Your task to perform on an android device: turn on showing notifications on the lock screen Image 0: 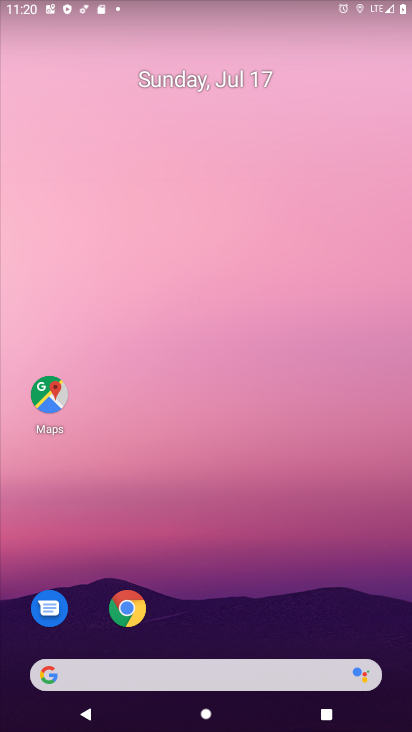
Step 0: drag from (210, 649) to (141, 58)
Your task to perform on an android device: turn on showing notifications on the lock screen Image 1: 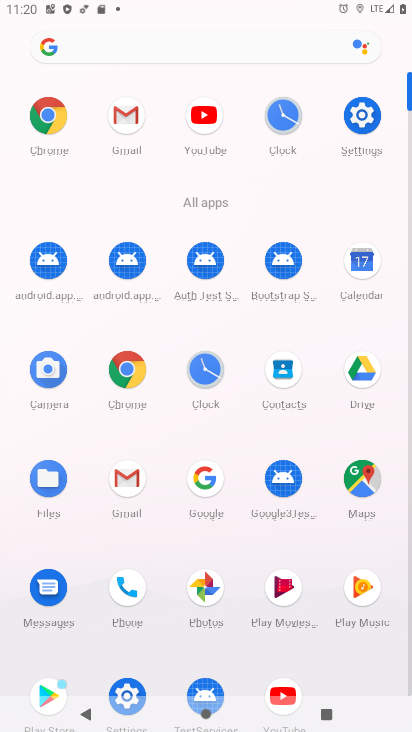
Step 1: click (351, 128)
Your task to perform on an android device: turn on showing notifications on the lock screen Image 2: 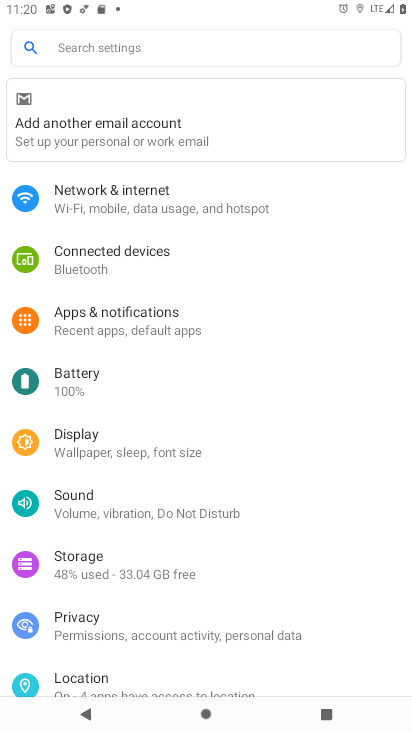
Step 2: click (185, 331)
Your task to perform on an android device: turn on showing notifications on the lock screen Image 3: 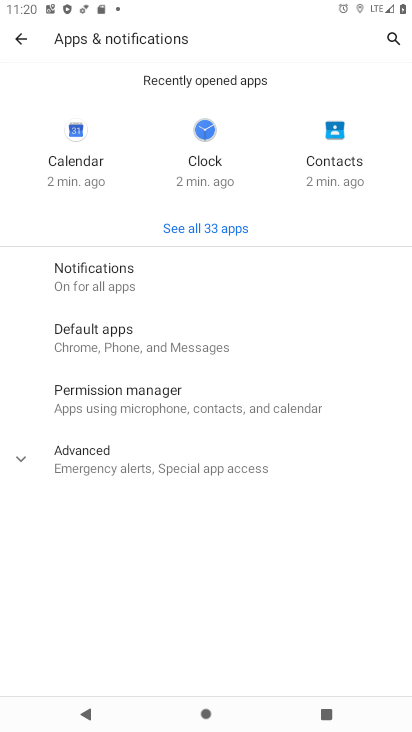
Step 3: click (99, 267)
Your task to perform on an android device: turn on showing notifications on the lock screen Image 4: 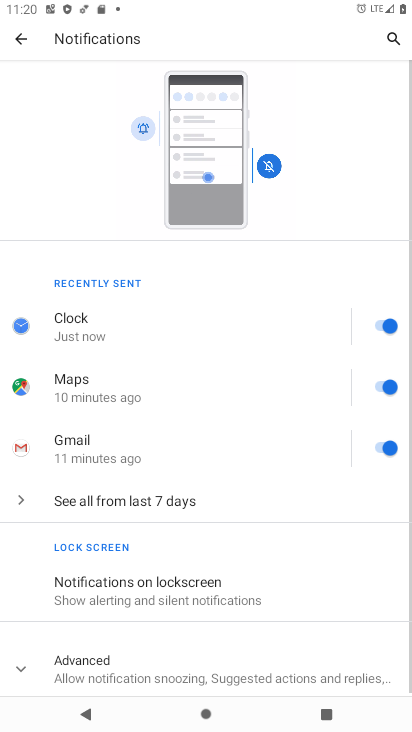
Step 4: click (158, 579)
Your task to perform on an android device: turn on showing notifications on the lock screen Image 5: 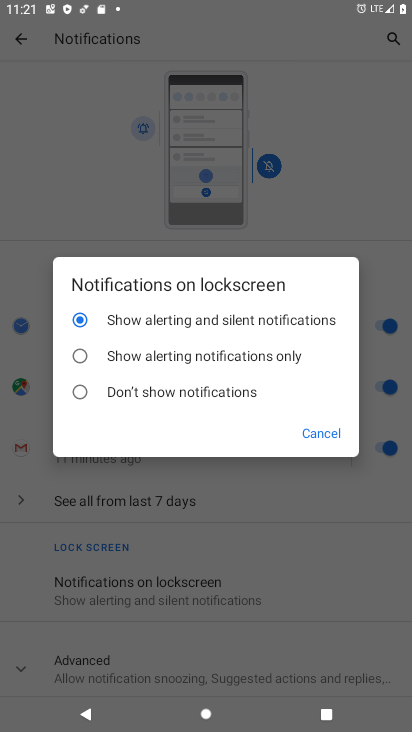
Step 5: click (169, 308)
Your task to perform on an android device: turn on showing notifications on the lock screen Image 6: 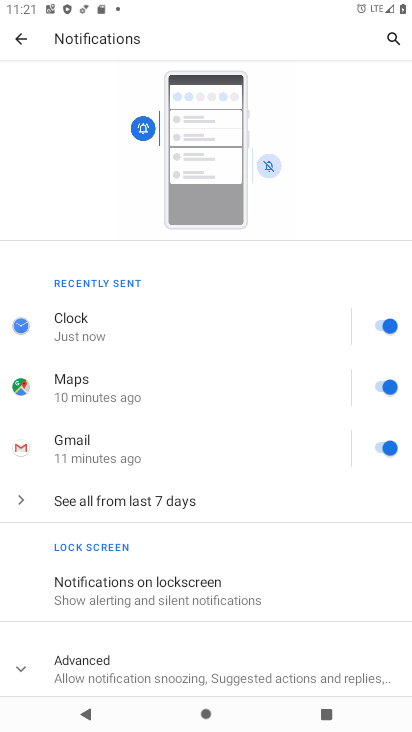
Step 6: task complete